Your task to perform on an android device: Search for pizza restaurants on Maps Image 0: 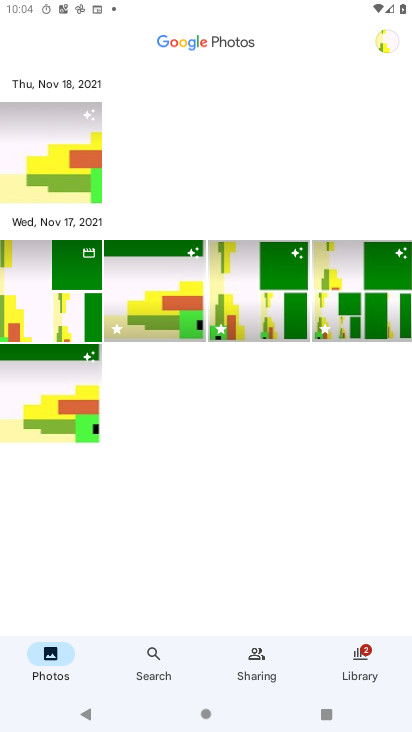
Step 0: press home button
Your task to perform on an android device: Search for pizza restaurants on Maps Image 1: 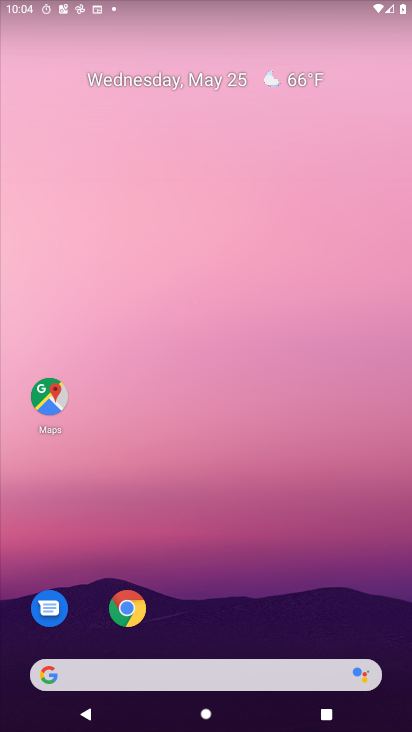
Step 1: drag from (225, 722) to (225, 153)
Your task to perform on an android device: Search for pizza restaurants on Maps Image 2: 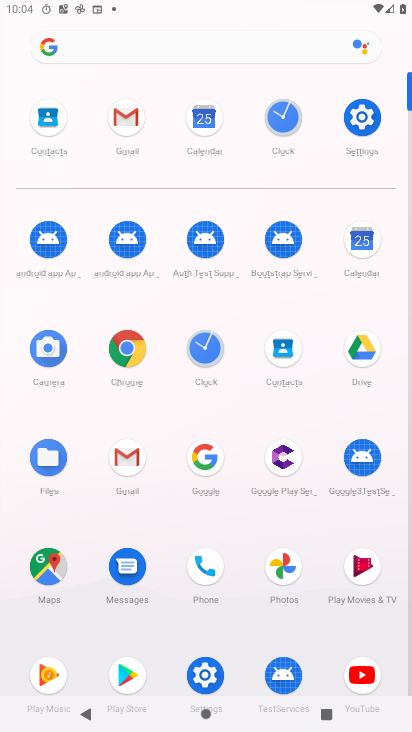
Step 2: click (50, 567)
Your task to perform on an android device: Search for pizza restaurants on Maps Image 3: 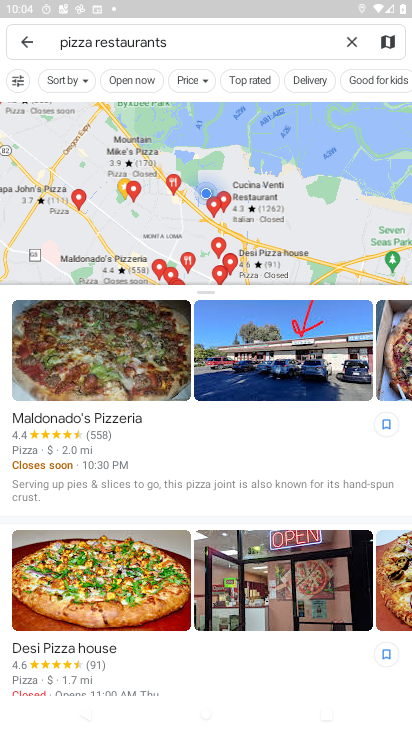
Step 3: task complete